Your task to perform on an android device: install app "Google Calendar" Image 0: 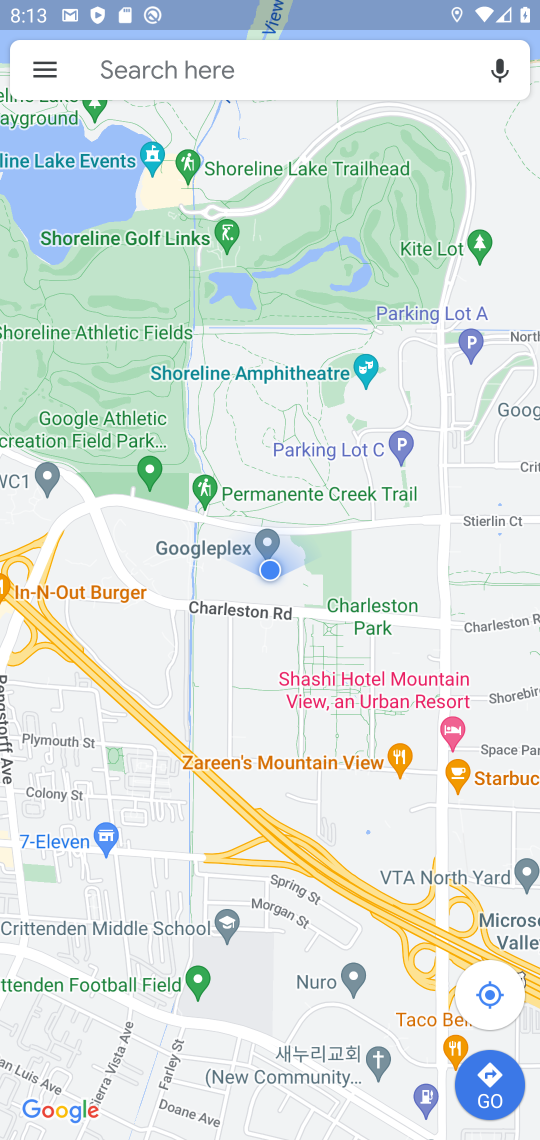
Step 0: press home button
Your task to perform on an android device: install app "Google Calendar" Image 1: 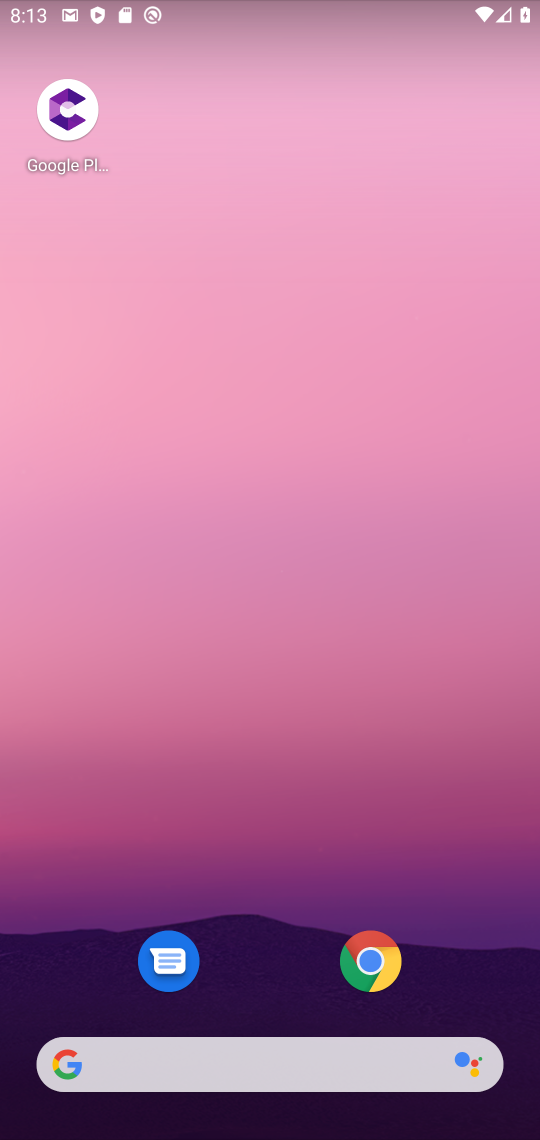
Step 1: drag from (284, 860) to (302, 27)
Your task to perform on an android device: install app "Google Calendar" Image 2: 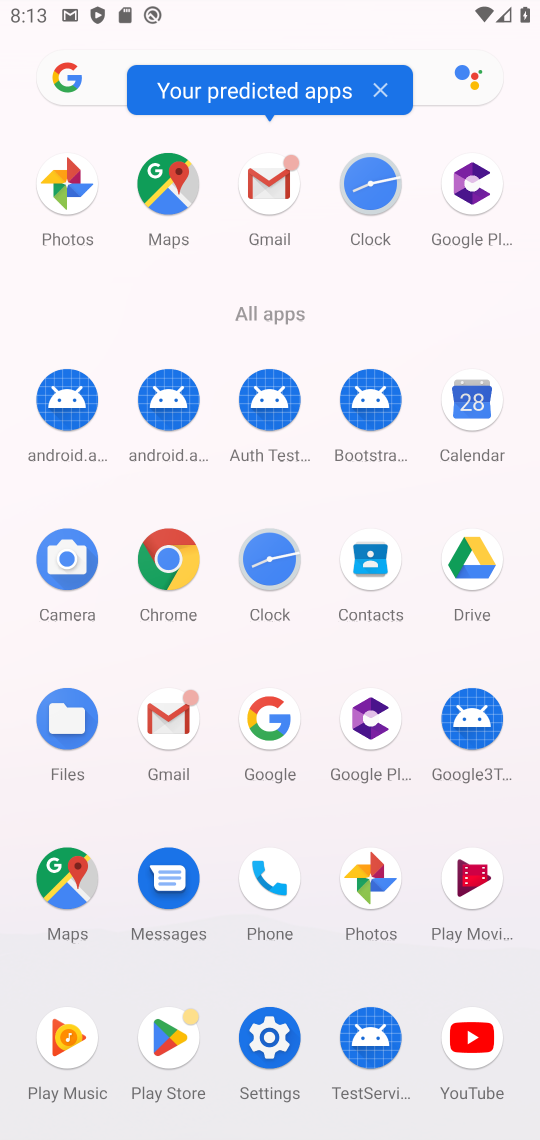
Step 2: click (171, 1019)
Your task to perform on an android device: install app "Google Calendar" Image 3: 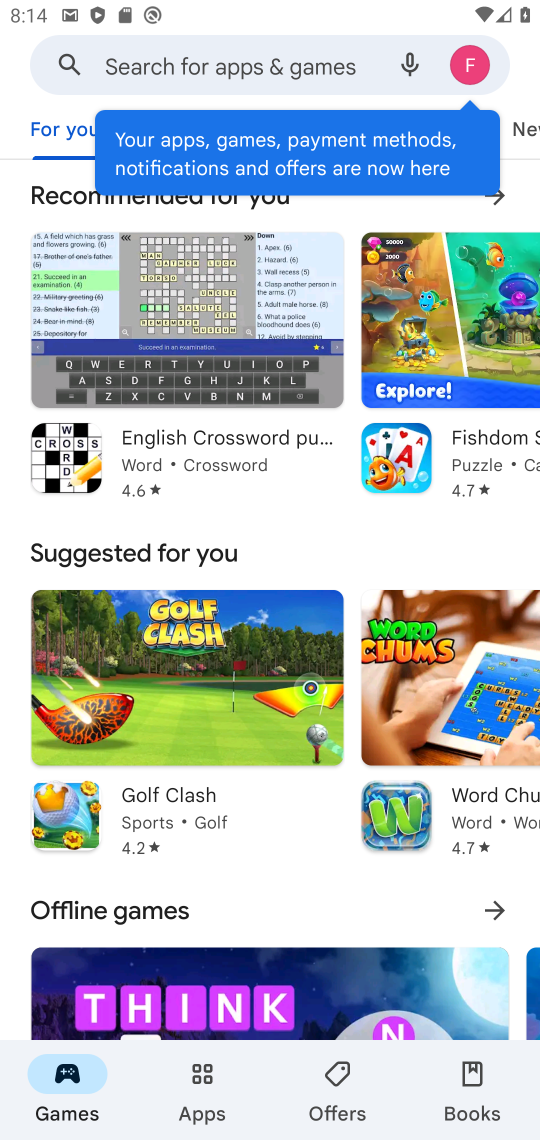
Step 3: click (336, 60)
Your task to perform on an android device: install app "Google Calendar" Image 4: 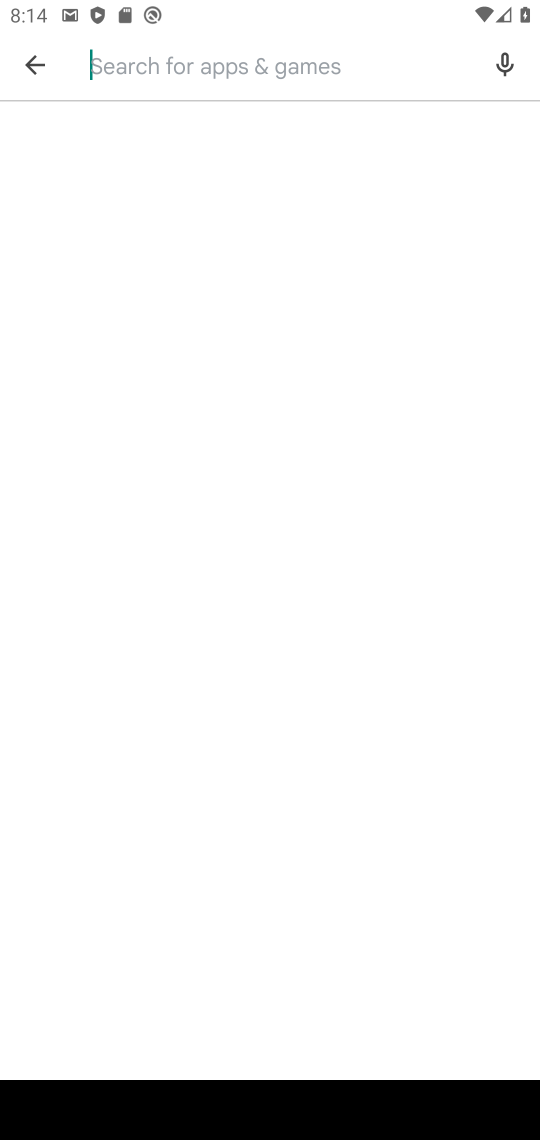
Step 4: type "google calendar"
Your task to perform on an android device: install app "Google Calendar" Image 5: 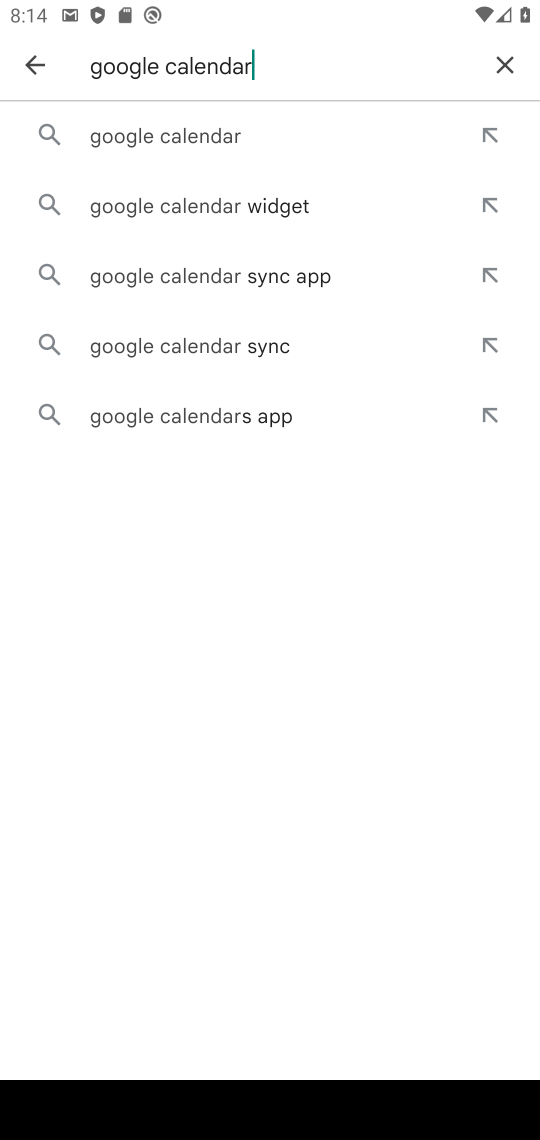
Step 5: click (193, 129)
Your task to perform on an android device: install app "Google Calendar" Image 6: 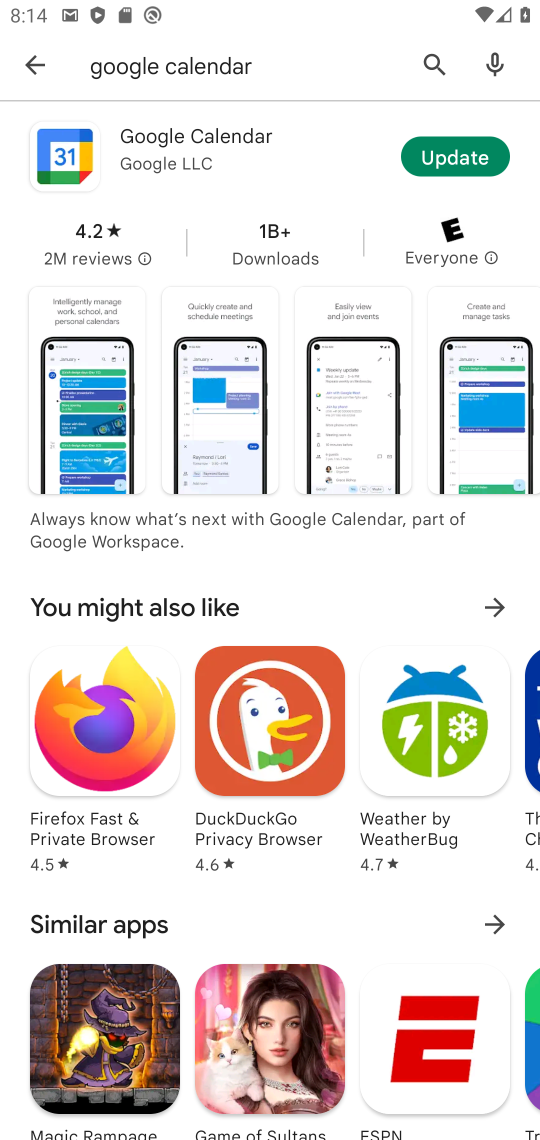
Step 6: click (433, 158)
Your task to perform on an android device: install app "Google Calendar" Image 7: 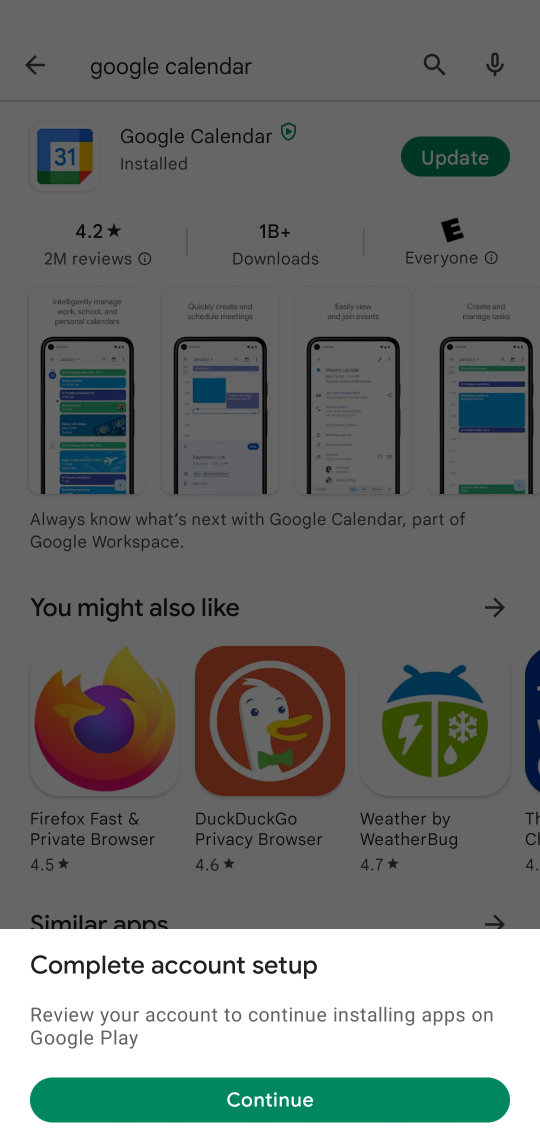
Step 7: click (483, 1098)
Your task to perform on an android device: install app "Google Calendar" Image 8: 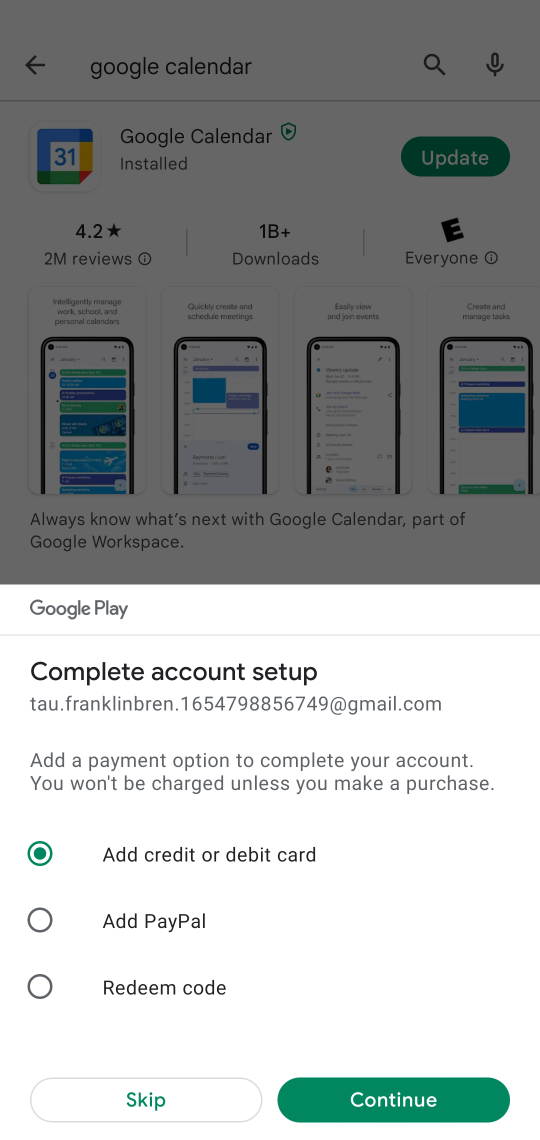
Step 8: click (218, 1086)
Your task to perform on an android device: install app "Google Calendar" Image 9: 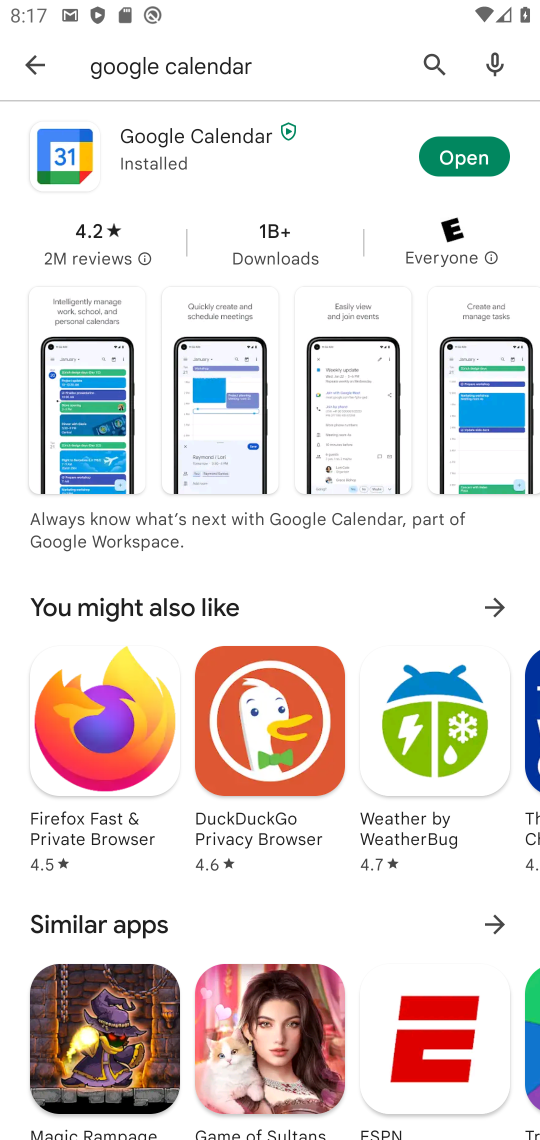
Step 9: task complete